Your task to perform on an android device: Search for Mexican restaurants on Maps Image 0: 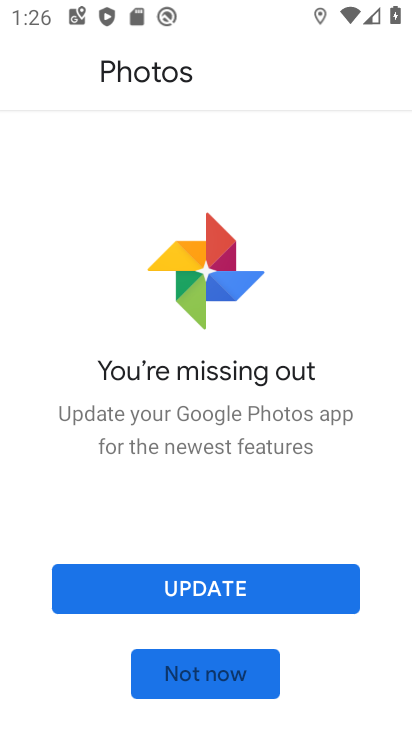
Step 0: press home button
Your task to perform on an android device: Search for Mexican restaurants on Maps Image 1: 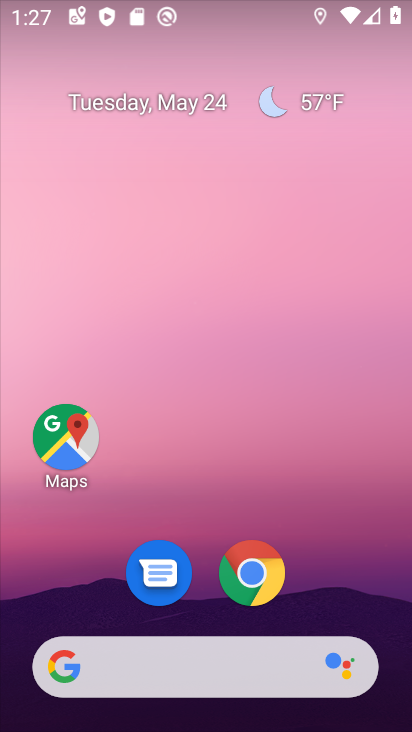
Step 1: drag from (353, 580) to (350, 289)
Your task to perform on an android device: Search for Mexican restaurants on Maps Image 2: 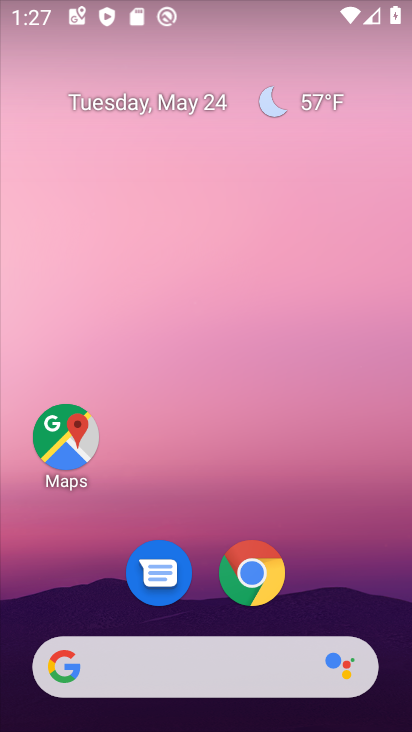
Step 2: drag from (360, 597) to (344, 259)
Your task to perform on an android device: Search for Mexican restaurants on Maps Image 3: 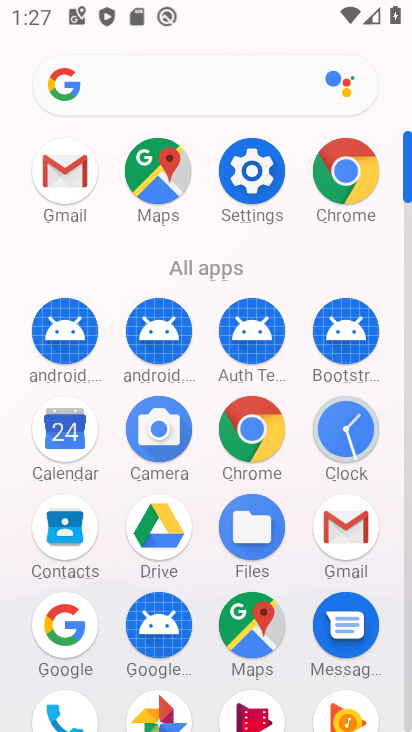
Step 3: click (147, 160)
Your task to perform on an android device: Search for Mexican restaurants on Maps Image 4: 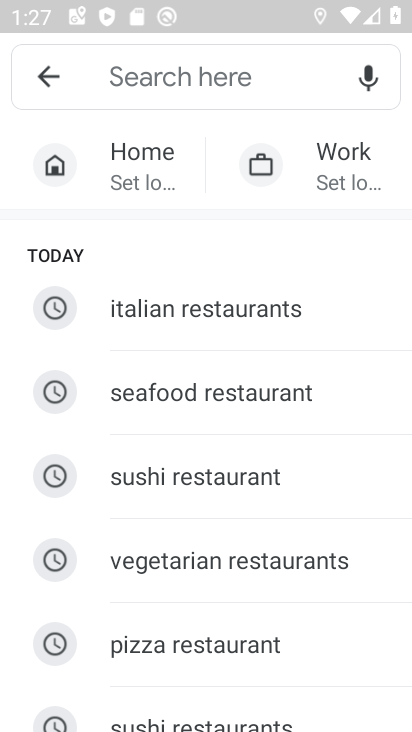
Step 4: drag from (304, 616) to (318, 281)
Your task to perform on an android device: Search for Mexican restaurants on Maps Image 5: 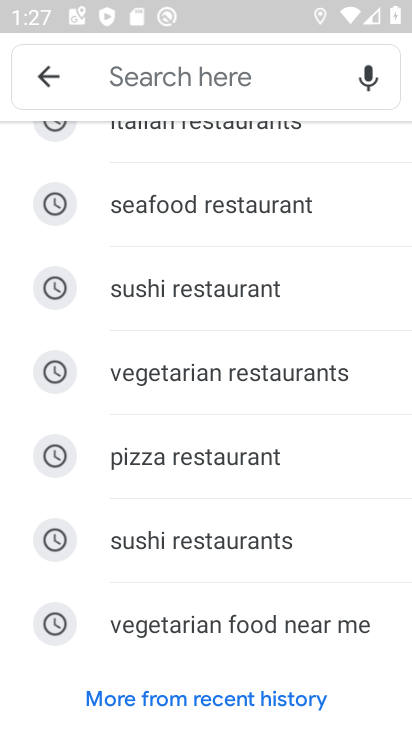
Step 5: click (239, 83)
Your task to perform on an android device: Search for Mexican restaurants on Maps Image 6: 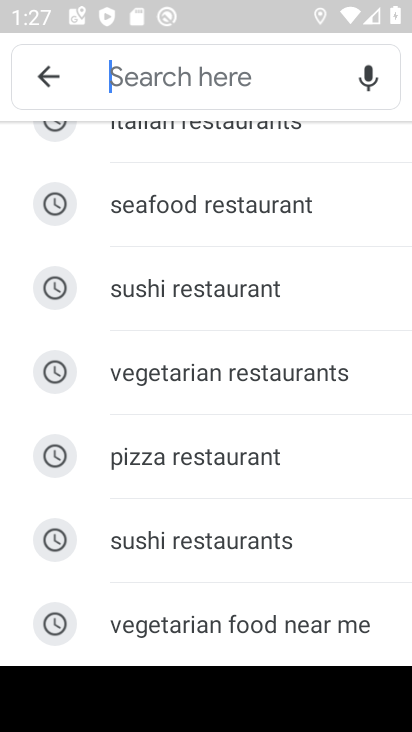
Step 6: type "mexican restaurants"
Your task to perform on an android device: Search for Mexican restaurants on Maps Image 7: 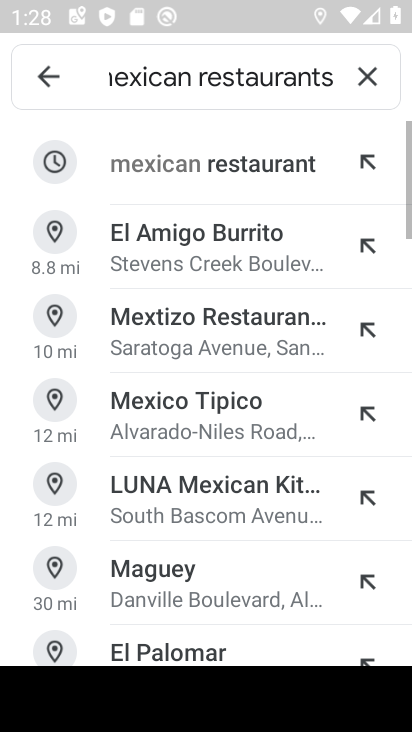
Step 7: click (227, 176)
Your task to perform on an android device: Search for Mexican restaurants on Maps Image 8: 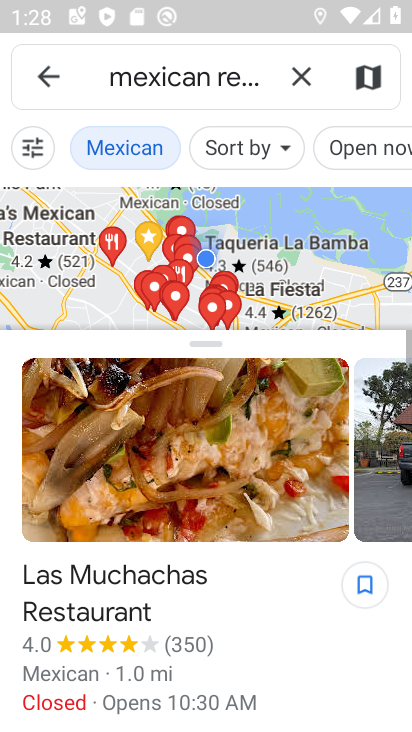
Step 8: task complete